Your task to perform on an android device: turn off javascript in the chrome app Image 0: 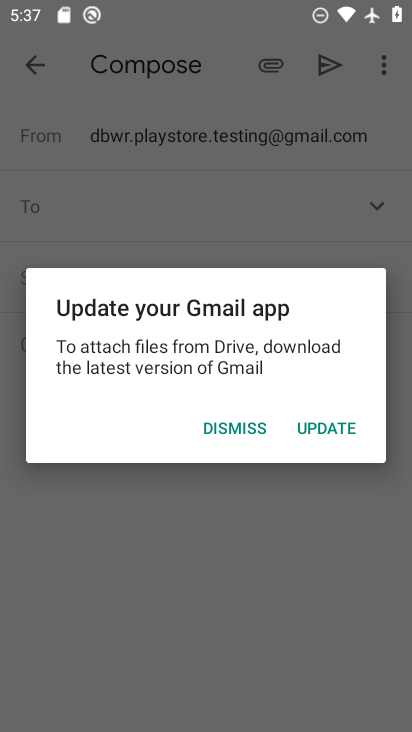
Step 0: press back button
Your task to perform on an android device: turn off javascript in the chrome app Image 1: 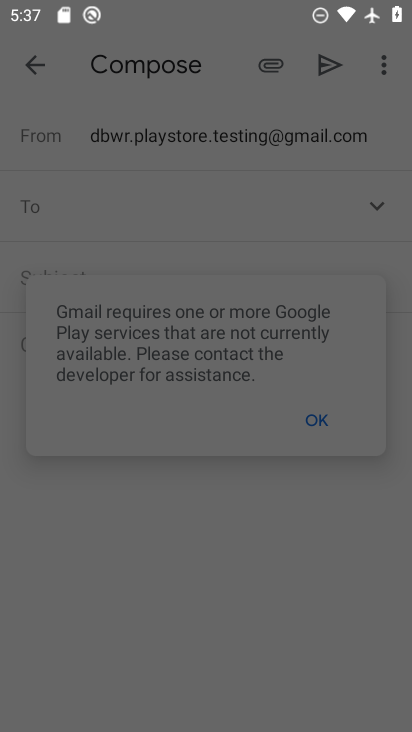
Step 1: press home button
Your task to perform on an android device: turn off javascript in the chrome app Image 2: 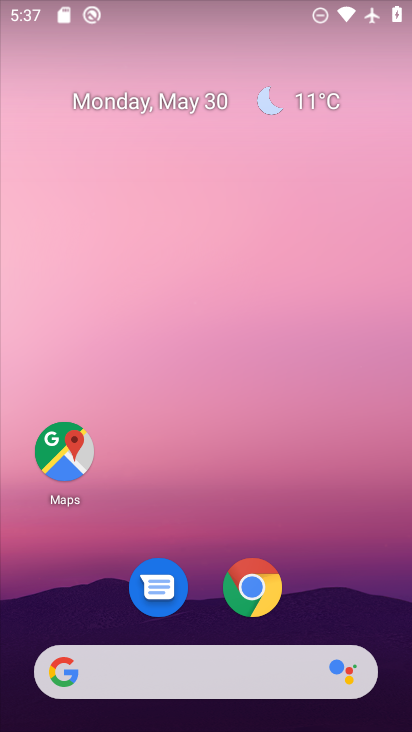
Step 2: drag from (299, 551) to (259, 21)
Your task to perform on an android device: turn off javascript in the chrome app Image 3: 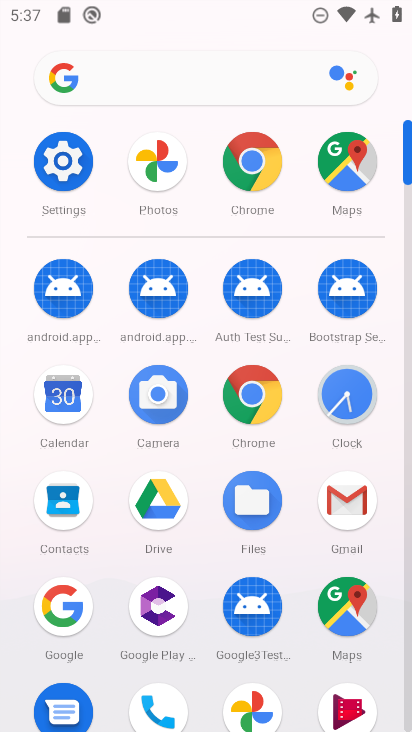
Step 3: drag from (13, 478) to (13, 181)
Your task to perform on an android device: turn off javascript in the chrome app Image 4: 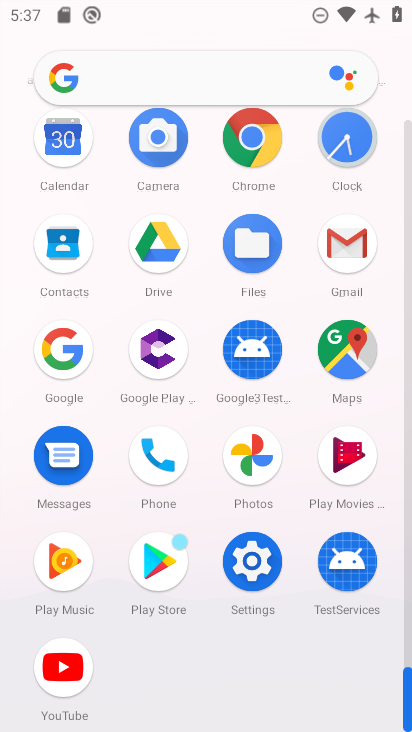
Step 4: click (248, 129)
Your task to perform on an android device: turn off javascript in the chrome app Image 5: 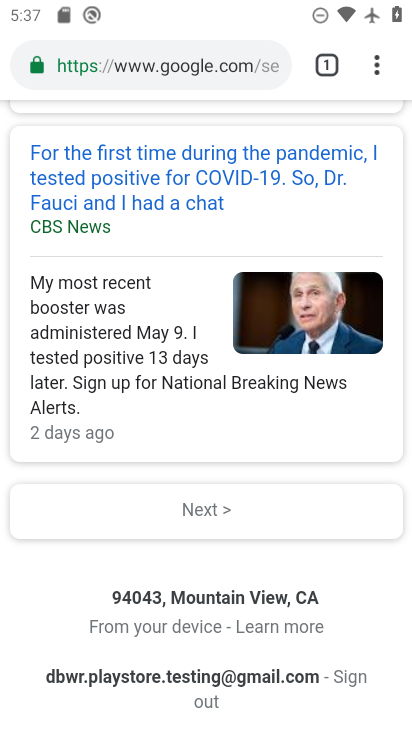
Step 5: drag from (373, 69) to (178, 636)
Your task to perform on an android device: turn off javascript in the chrome app Image 6: 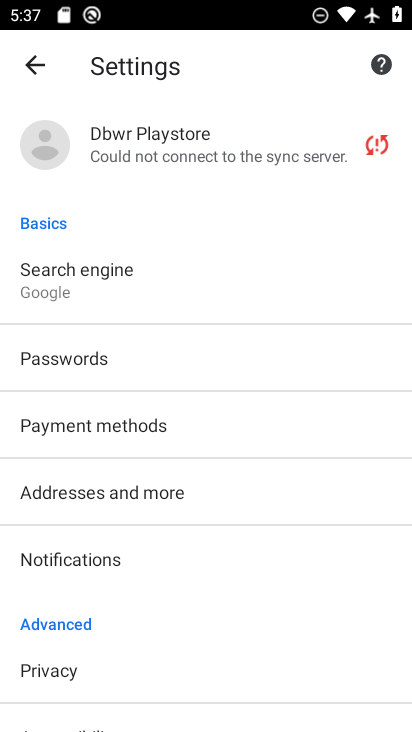
Step 6: drag from (224, 441) to (233, 187)
Your task to perform on an android device: turn off javascript in the chrome app Image 7: 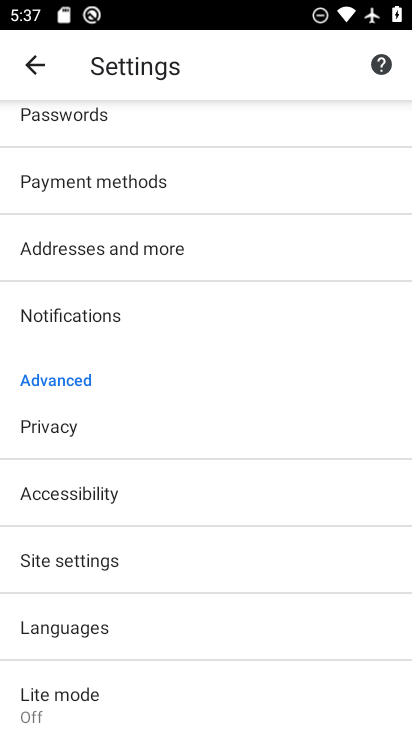
Step 7: drag from (233, 579) to (221, 146)
Your task to perform on an android device: turn off javascript in the chrome app Image 8: 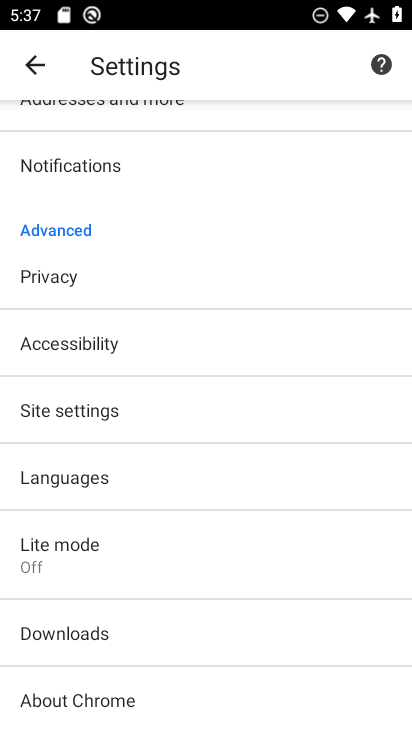
Step 8: click (136, 537)
Your task to perform on an android device: turn off javascript in the chrome app Image 9: 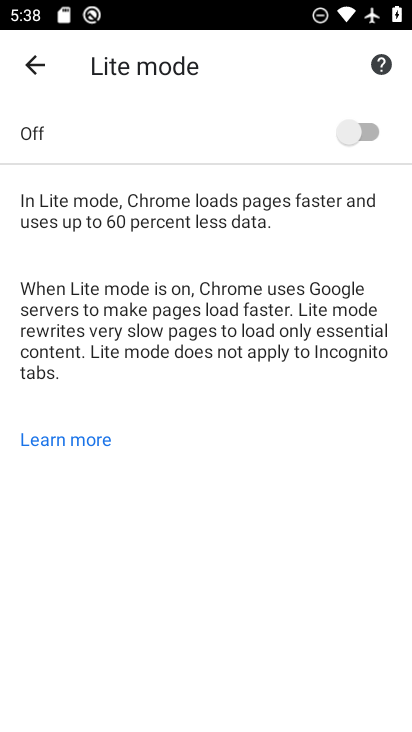
Step 9: click (30, 67)
Your task to perform on an android device: turn off javascript in the chrome app Image 10: 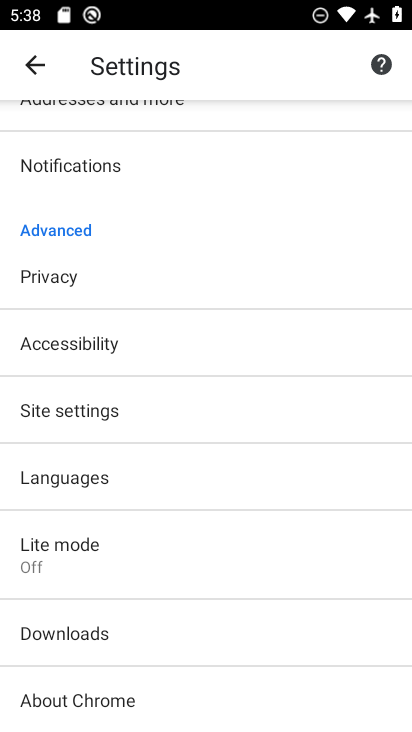
Step 10: click (39, 67)
Your task to perform on an android device: turn off javascript in the chrome app Image 11: 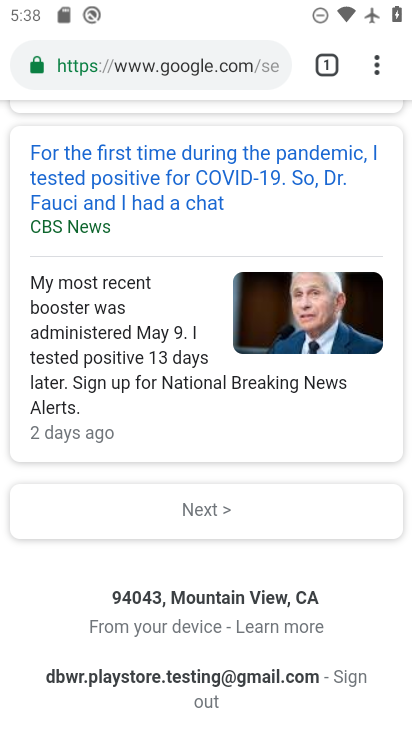
Step 11: drag from (373, 63) to (159, 632)
Your task to perform on an android device: turn off javascript in the chrome app Image 12: 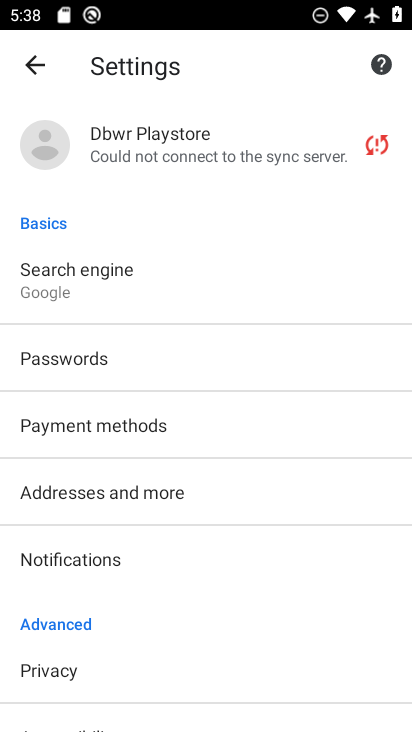
Step 12: drag from (191, 625) to (194, 285)
Your task to perform on an android device: turn off javascript in the chrome app Image 13: 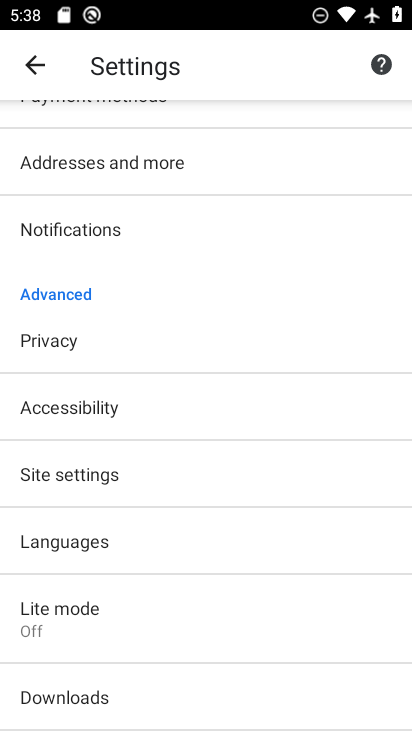
Step 13: click (134, 470)
Your task to perform on an android device: turn off javascript in the chrome app Image 14: 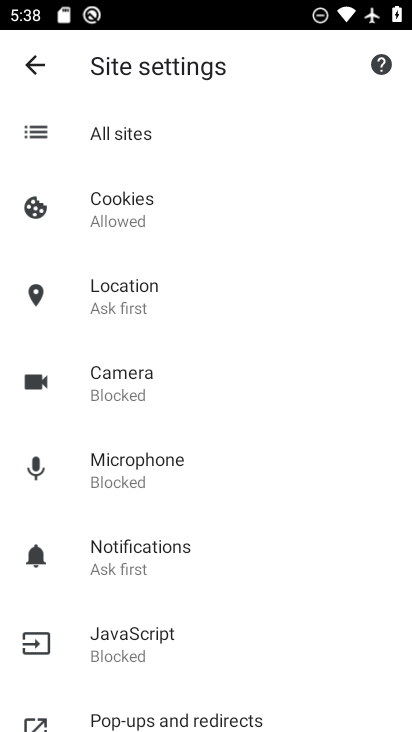
Step 14: click (170, 636)
Your task to perform on an android device: turn off javascript in the chrome app Image 15: 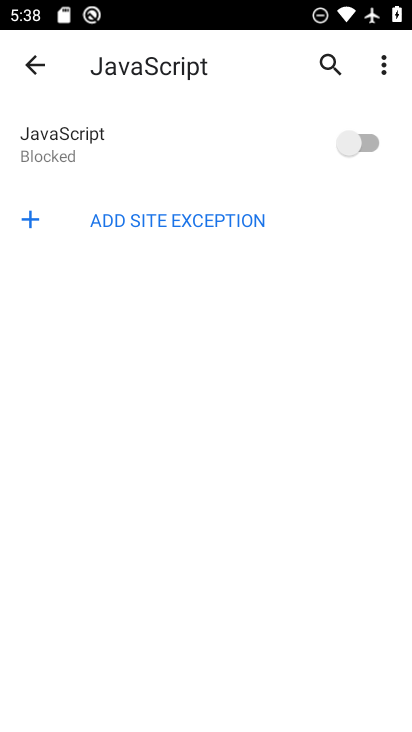
Step 15: task complete